Your task to perform on an android device: Go to battery settings Image 0: 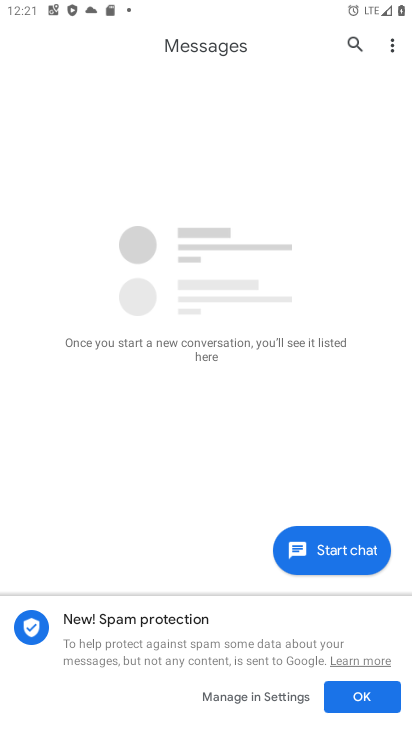
Step 0: press home button
Your task to perform on an android device: Go to battery settings Image 1: 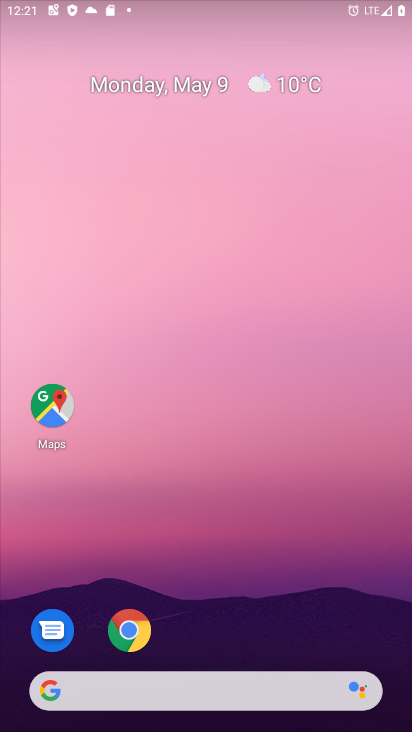
Step 1: drag from (360, 560) to (260, 107)
Your task to perform on an android device: Go to battery settings Image 2: 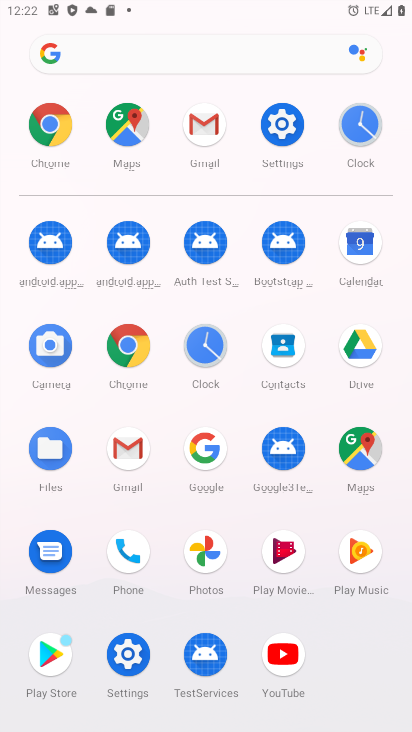
Step 2: click (135, 649)
Your task to perform on an android device: Go to battery settings Image 3: 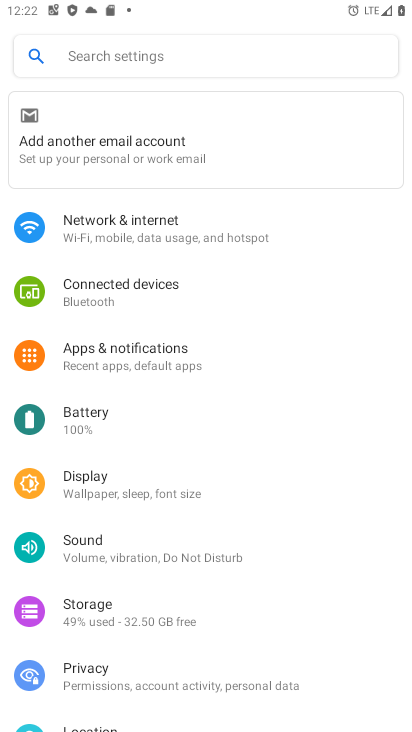
Step 3: click (122, 427)
Your task to perform on an android device: Go to battery settings Image 4: 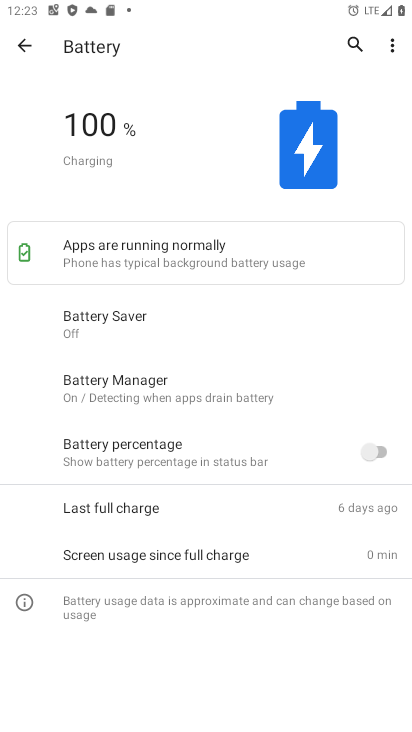
Step 4: task complete